Your task to perform on an android device: Open my contact list Image 0: 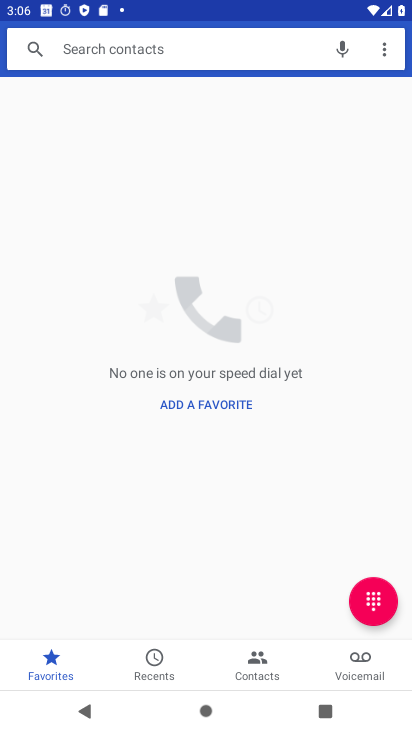
Step 0: press home button
Your task to perform on an android device: Open my contact list Image 1: 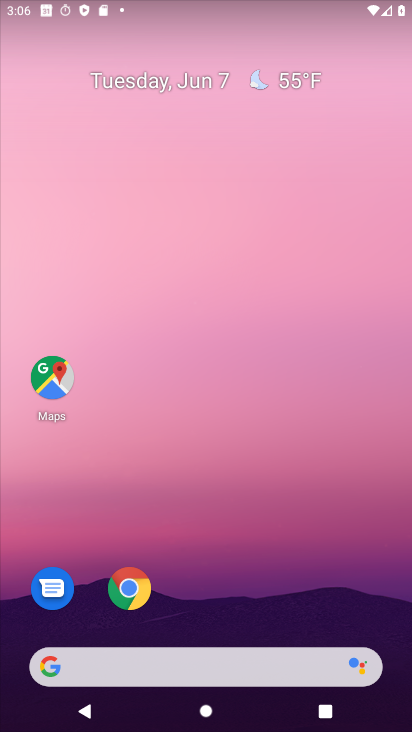
Step 1: drag from (262, 489) to (284, 15)
Your task to perform on an android device: Open my contact list Image 2: 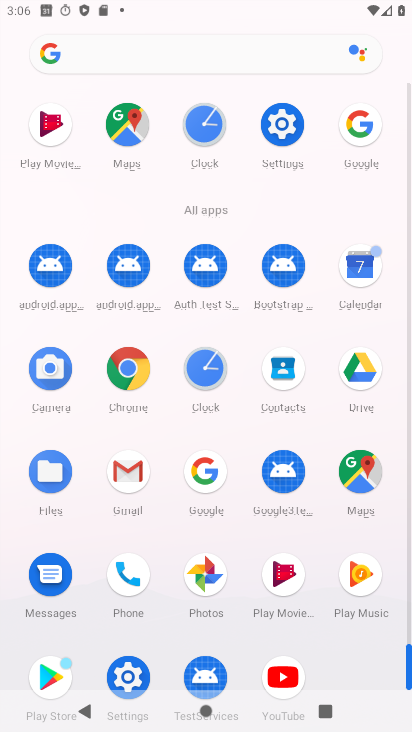
Step 2: click (128, 242)
Your task to perform on an android device: Open my contact list Image 3: 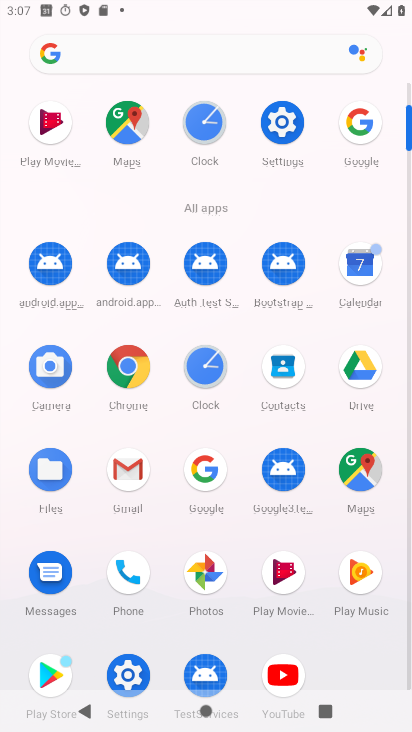
Step 3: click (282, 366)
Your task to perform on an android device: Open my contact list Image 4: 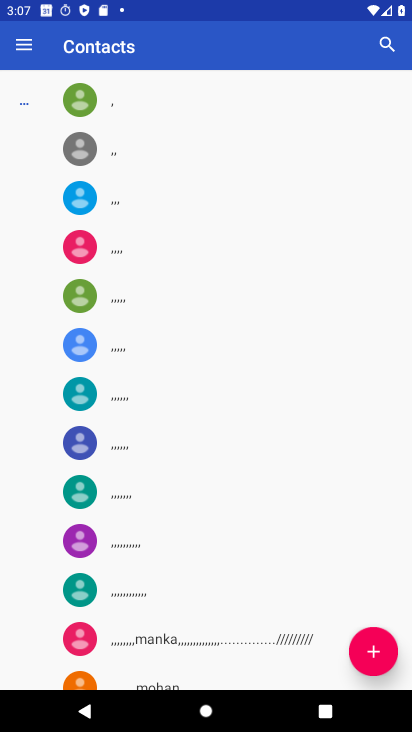
Step 4: task complete